Your task to perform on an android device: turn pop-ups off in chrome Image 0: 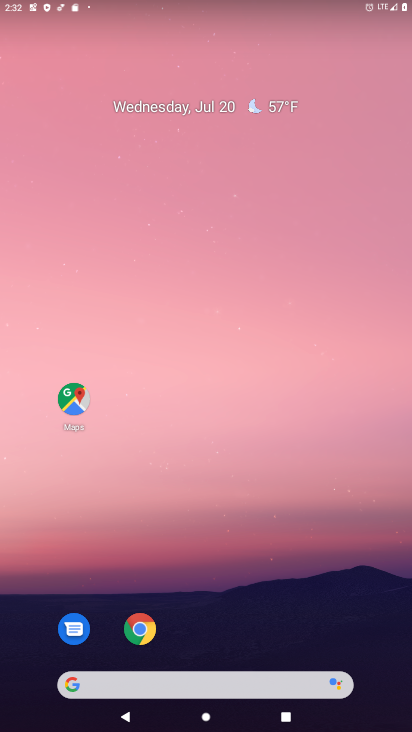
Step 0: click (139, 632)
Your task to perform on an android device: turn pop-ups off in chrome Image 1: 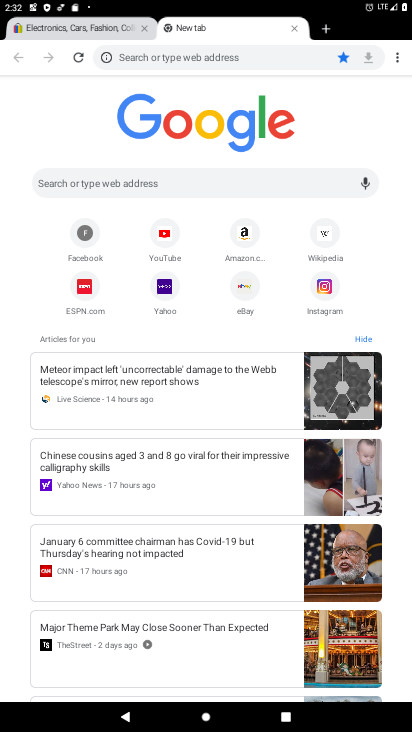
Step 1: click (398, 61)
Your task to perform on an android device: turn pop-ups off in chrome Image 2: 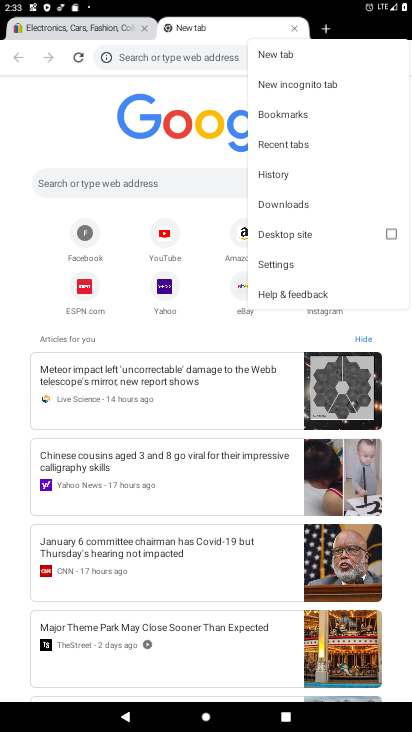
Step 2: click (282, 264)
Your task to perform on an android device: turn pop-ups off in chrome Image 3: 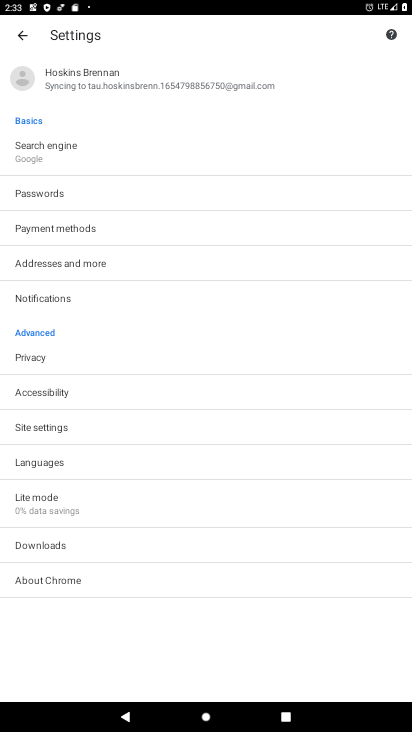
Step 3: click (32, 428)
Your task to perform on an android device: turn pop-ups off in chrome Image 4: 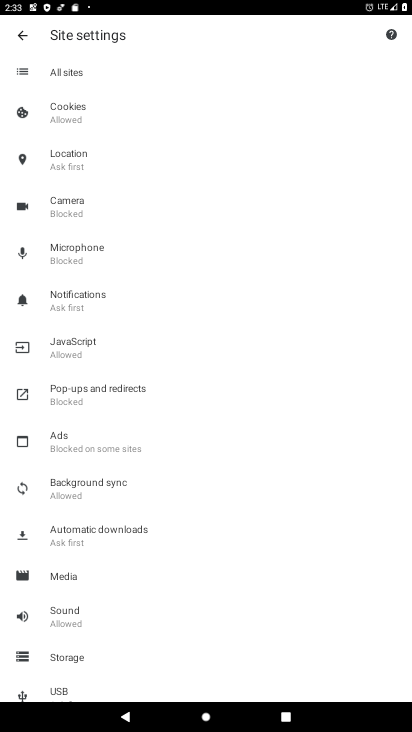
Step 4: click (72, 387)
Your task to perform on an android device: turn pop-ups off in chrome Image 5: 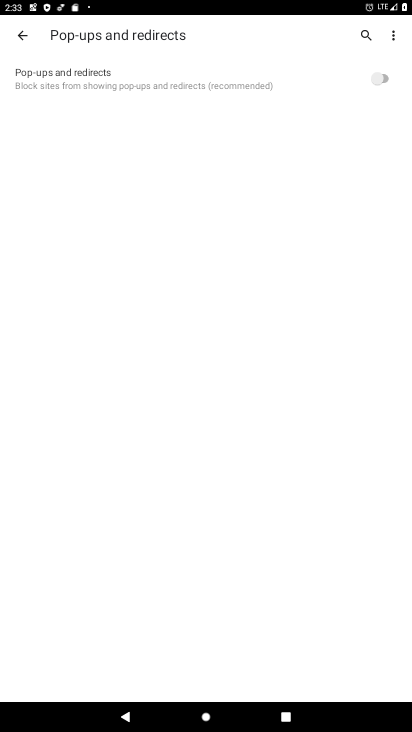
Step 5: task complete